Your task to perform on an android device: Open display settings Image 0: 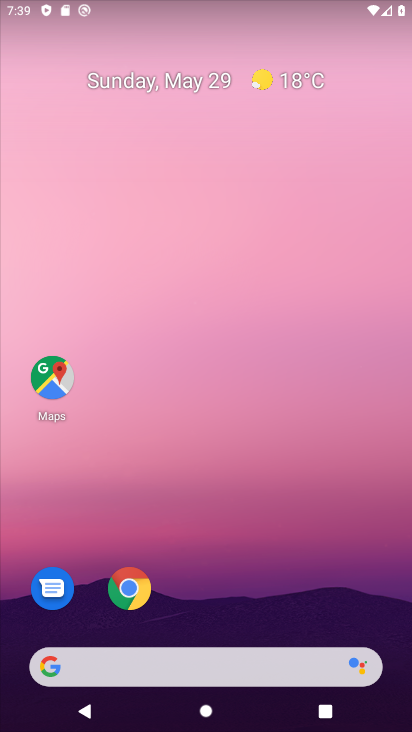
Step 0: drag from (233, 609) to (253, 141)
Your task to perform on an android device: Open display settings Image 1: 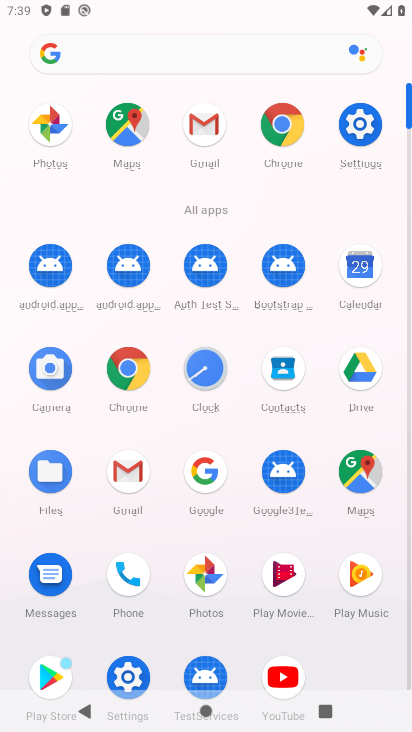
Step 1: click (364, 130)
Your task to perform on an android device: Open display settings Image 2: 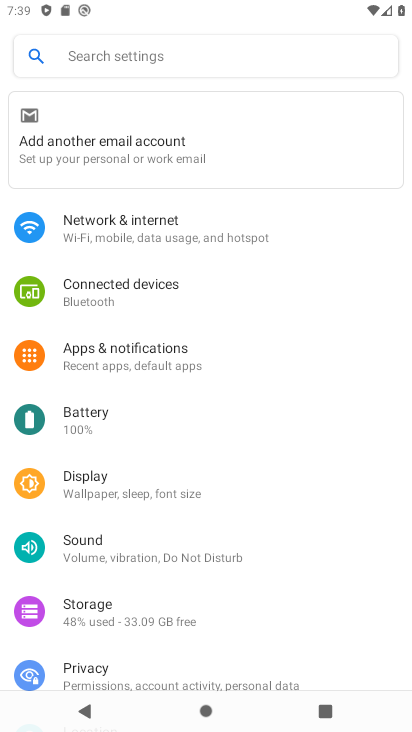
Step 2: click (104, 483)
Your task to perform on an android device: Open display settings Image 3: 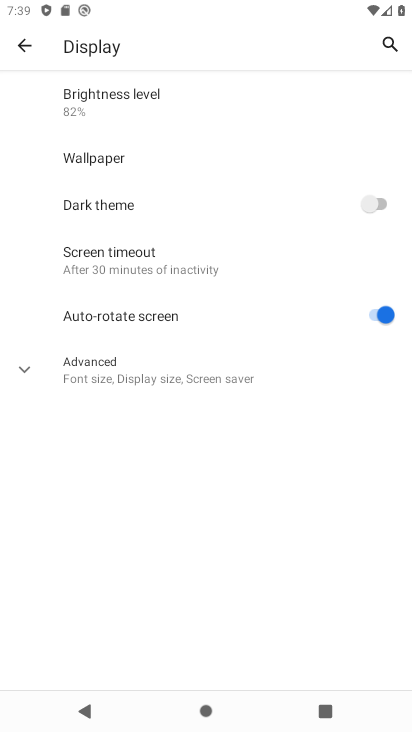
Step 3: task complete